Your task to perform on an android device: Open calendar and show me the first week of next month Image 0: 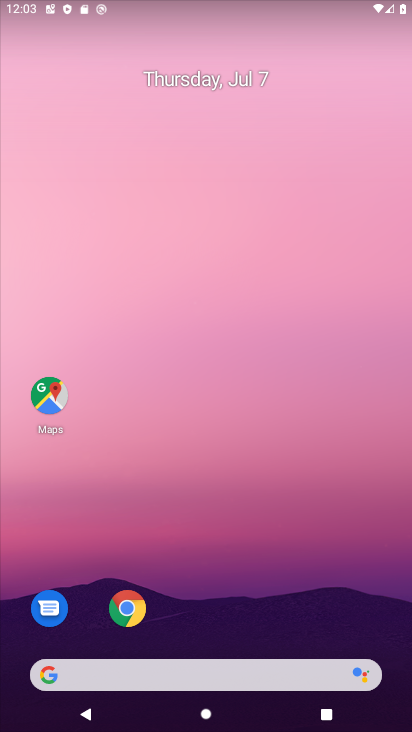
Step 0: drag from (161, 620) to (177, 178)
Your task to perform on an android device: Open calendar and show me the first week of next month Image 1: 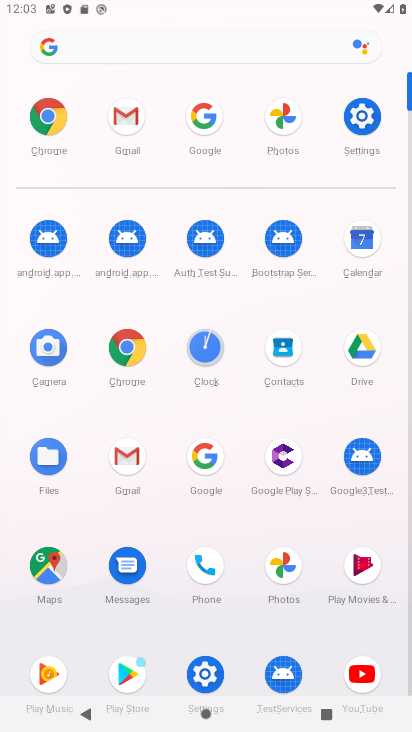
Step 1: click (358, 236)
Your task to perform on an android device: Open calendar and show me the first week of next month Image 2: 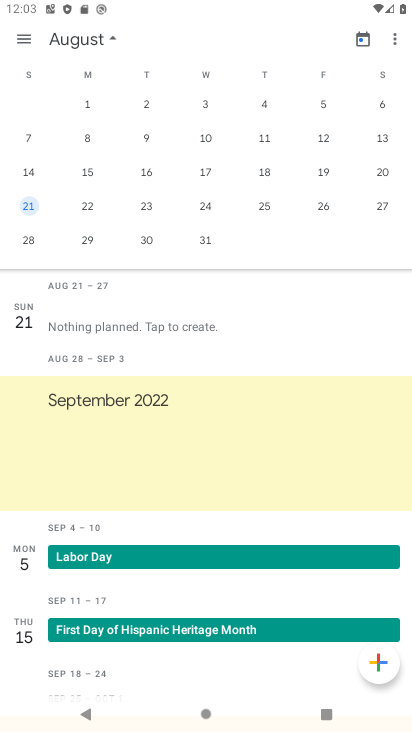
Step 2: click (90, 101)
Your task to perform on an android device: Open calendar and show me the first week of next month Image 3: 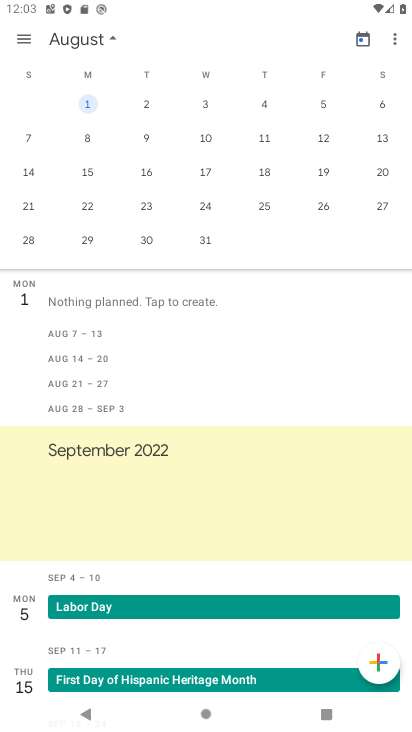
Step 3: task complete